Your task to perform on an android device: Open accessibility settings Image 0: 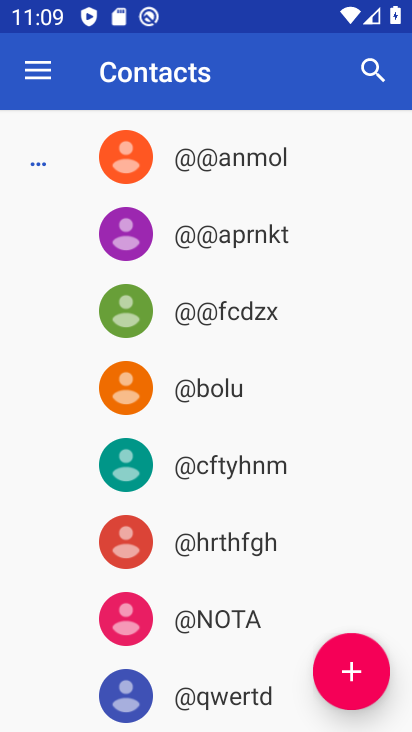
Step 0: press home button
Your task to perform on an android device: Open accessibility settings Image 1: 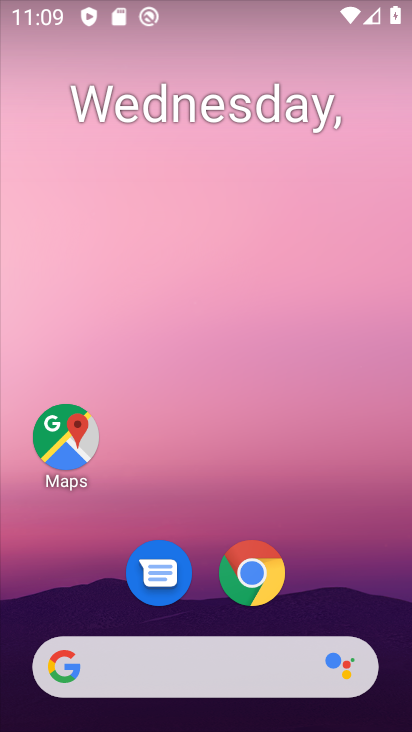
Step 1: drag from (361, 583) to (360, 280)
Your task to perform on an android device: Open accessibility settings Image 2: 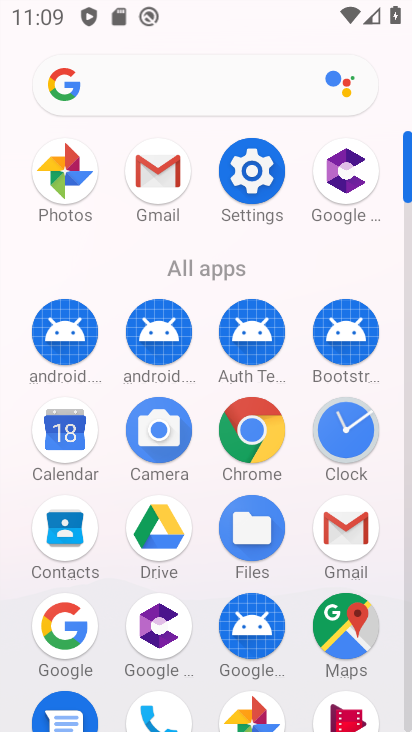
Step 2: click (250, 185)
Your task to perform on an android device: Open accessibility settings Image 3: 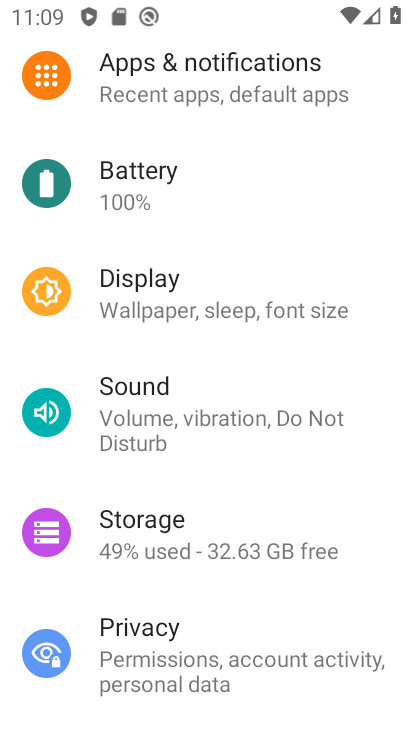
Step 3: drag from (363, 504) to (373, 412)
Your task to perform on an android device: Open accessibility settings Image 4: 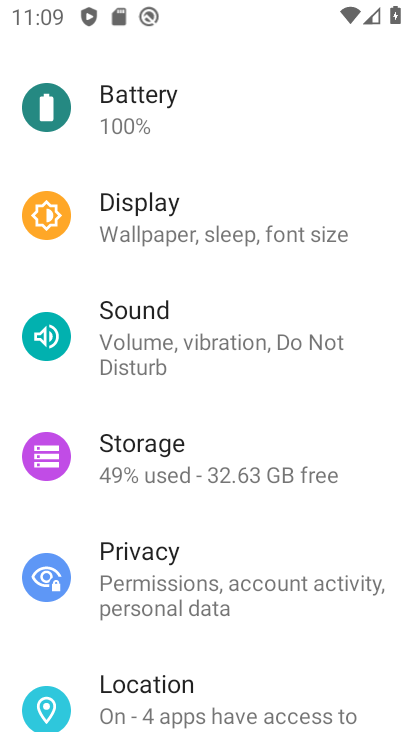
Step 4: drag from (362, 622) to (375, 441)
Your task to perform on an android device: Open accessibility settings Image 5: 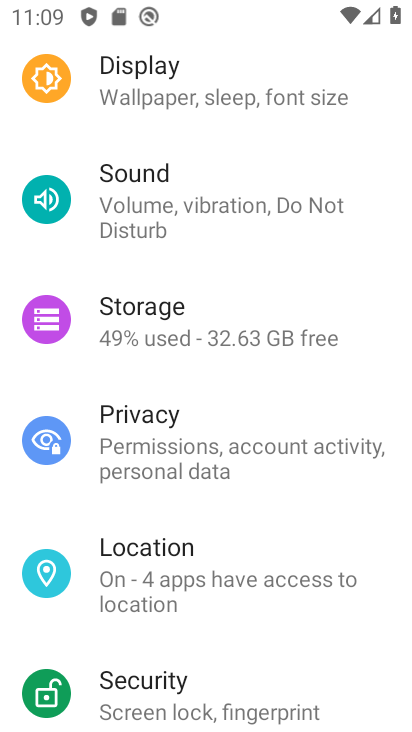
Step 5: drag from (342, 647) to (340, 442)
Your task to perform on an android device: Open accessibility settings Image 6: 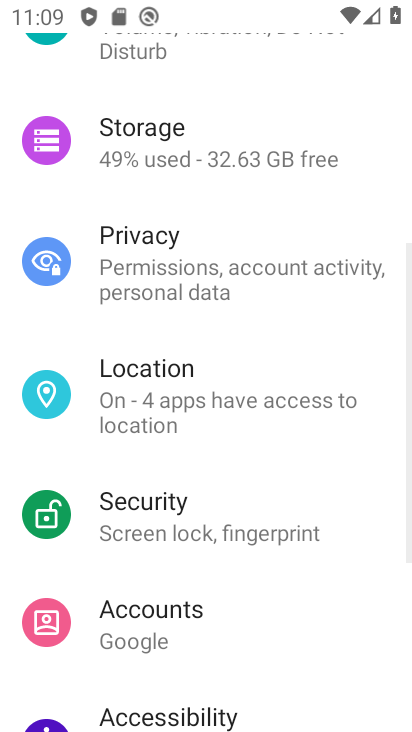
Step 6: drag from (321, 647) to (330, 435)
Your task to perform on an android device: Open accessibility settings Image 7: 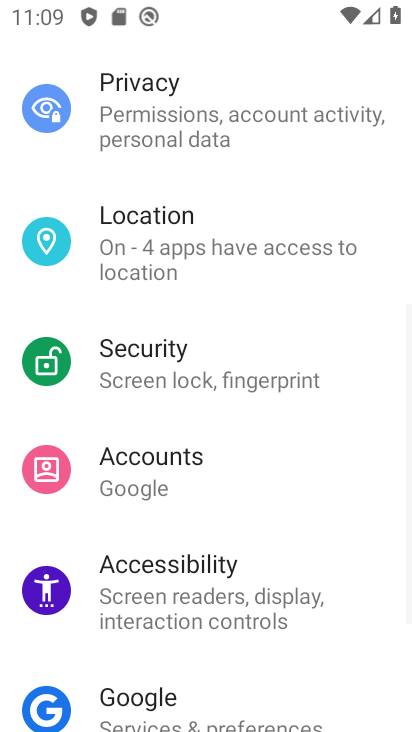
Step 7: click (304, 581)
Your task to perform on an android device: Open accessibility settings Image 8: 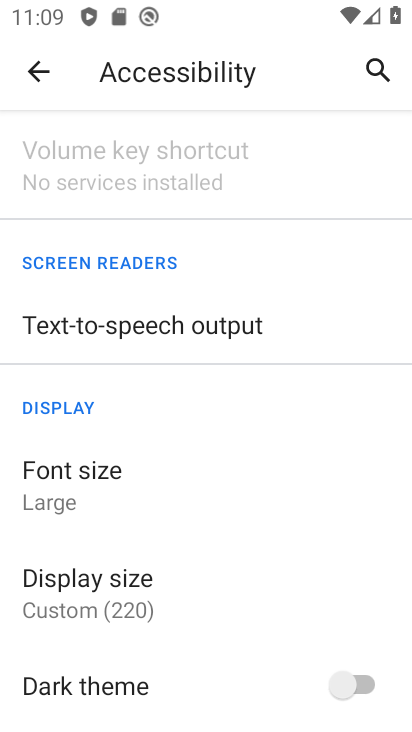
Step 8: task complete